Your task to perform on an android device: turn off wifi Image 0: 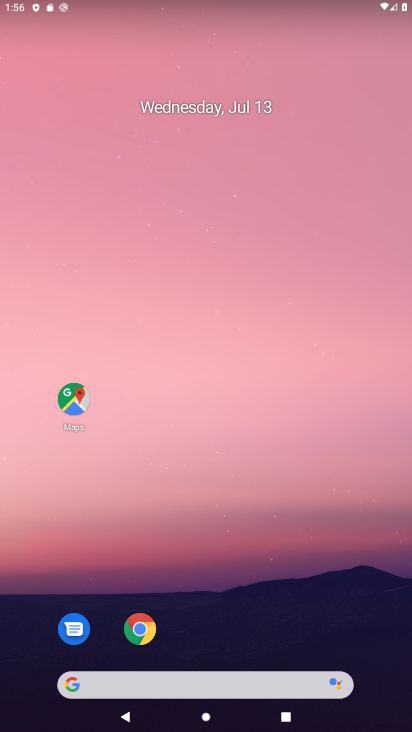
Step 0: drag from (329, 632) to (324, 179)
Your task to perform on an android device: turn off wifi Image 1: 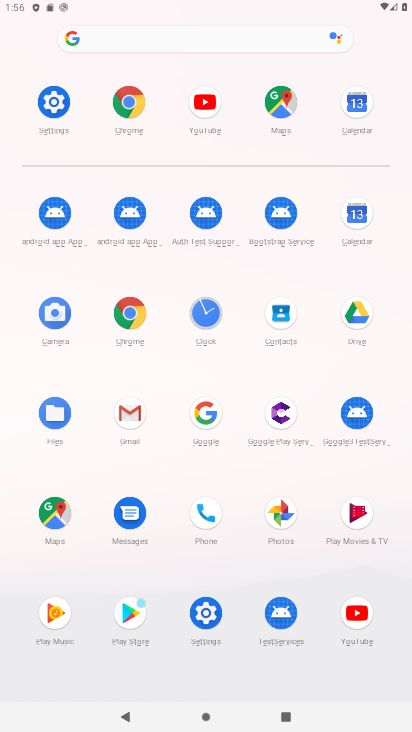
Step 1: click (65, 109)
Your task to perform on an android device: turn off wifi Image 2: 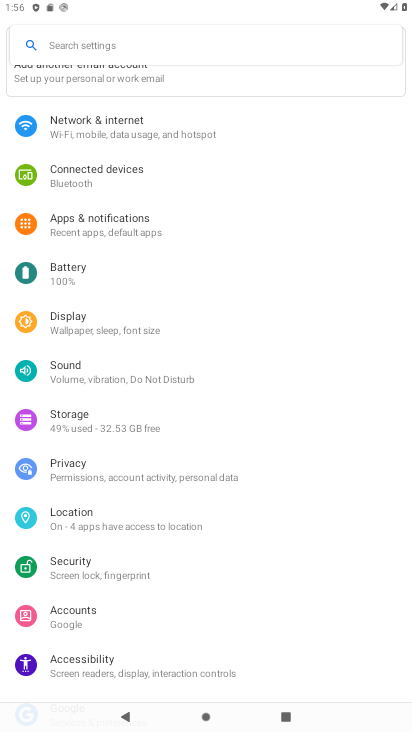
Step 2: click (155, 122)
Your task to perform on an android device: turn off wifi Image 3: 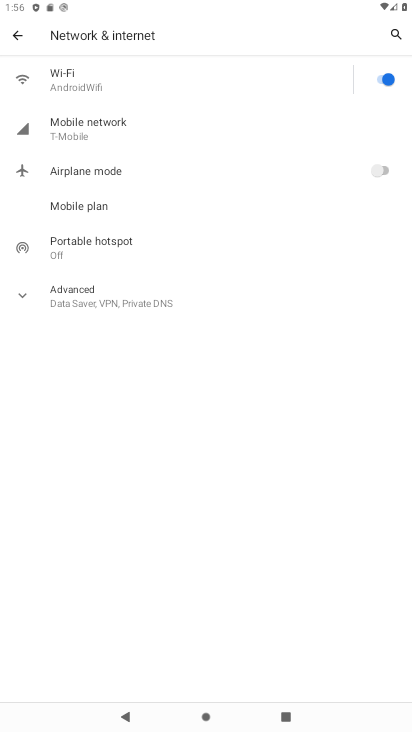
Step 3: click (392, 73)
Your task to perform on an android device: turn off wifi Image 4: 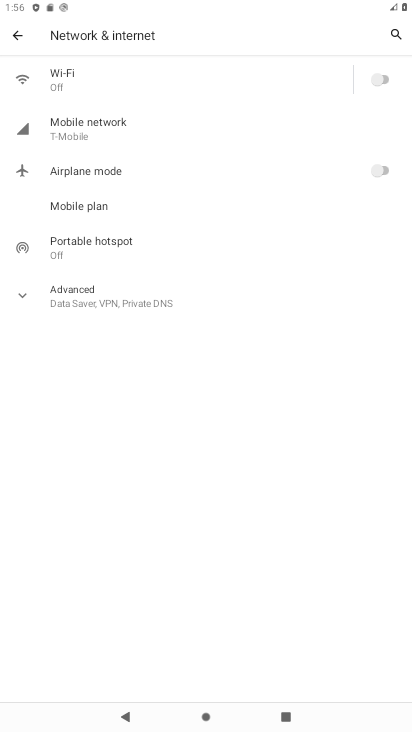
Step 4: task complete